Your task to perform on an android device: Who is the president of the United States? Image 0: 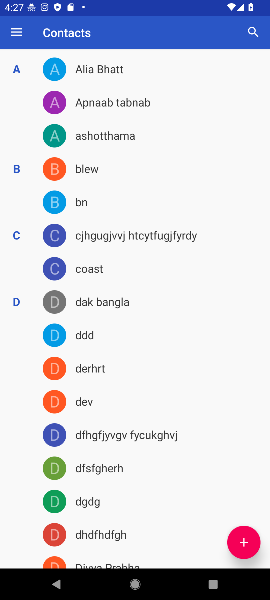
Step 0: press home button
Your task to perform on an android device: Who is the president of the United States? Image 1: 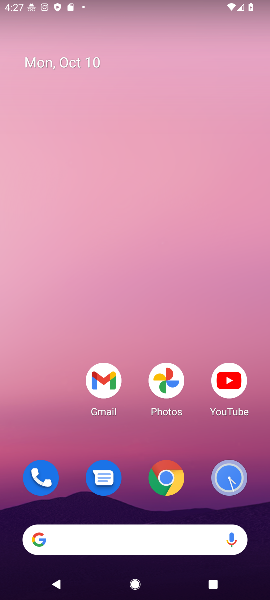
Step 1: click (164, 489)
Your task to perform on an android device: Who is the president of the United States? Image 2: 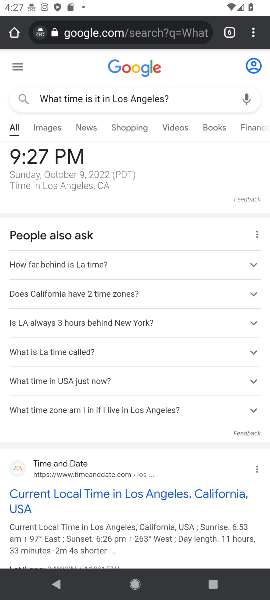
Step 2: click (224, 97)
Your task to perform on an android device: Who is the president of the United States? Image 3: 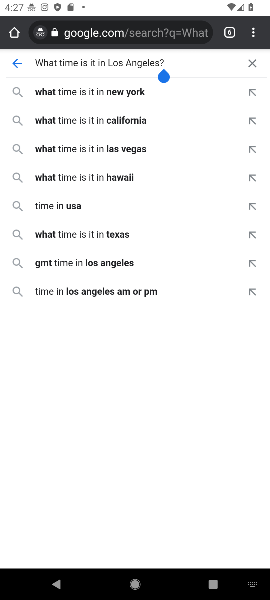
Step 3: click (251, 66)
Your task to perform on an android device: Who is the president of the United States? Image 4: 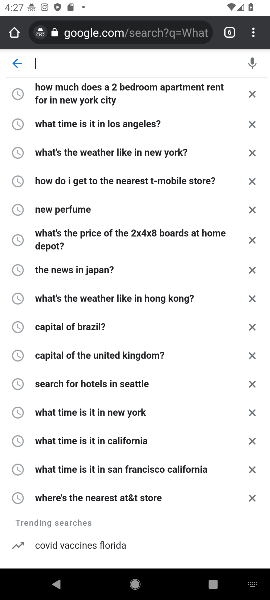
Step 4: type "Who is the president of the United States?"
Your task to perform on an android device: Who is the president of the United States? Image 5: 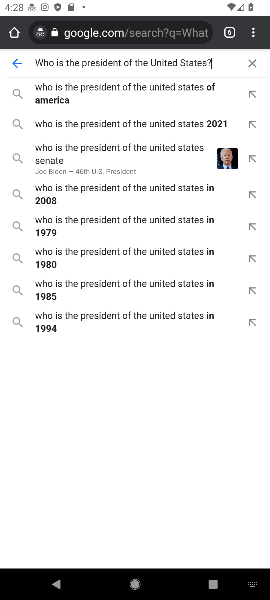
Step 5: click (60, 88)
Your task to perform on an android device: Who is the president of the United States? Image 6: 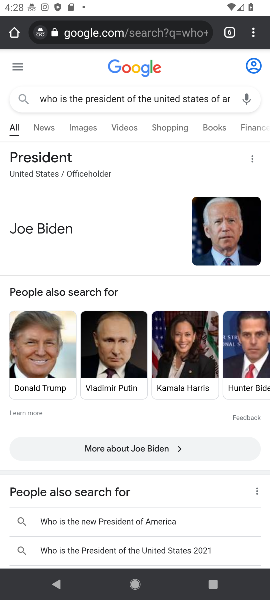
Step 6: task complete